Your task to perform on an android device: Open Google Chrome and click the shortcut for Amazon.com Image 0: 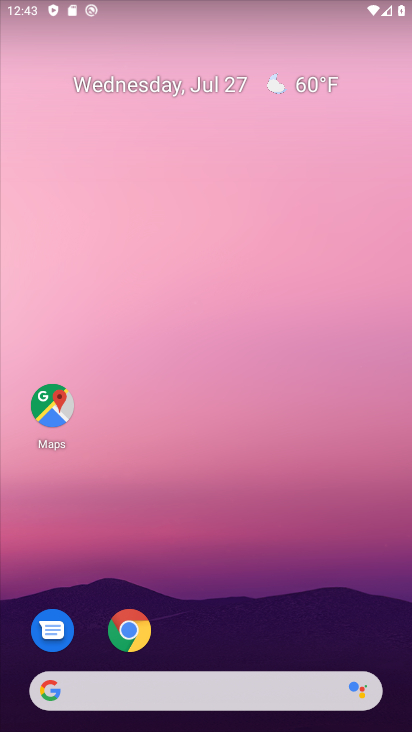
Step 0: drag from (227, 646) to (318, 126)
Your task to perform on an android device: Open Google Chrome and click the shortcut for Amazon.com Image 1: 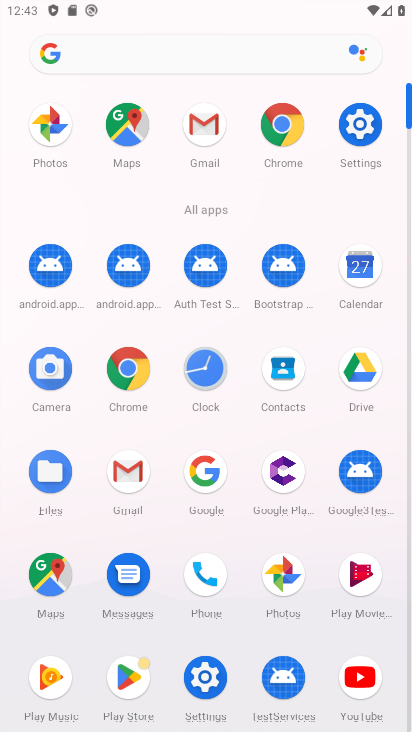
Step 1: click (289, 140)
Your task to perform on an android device: Open Google Chrome and click the shortcut for Amazon.com Image 2: 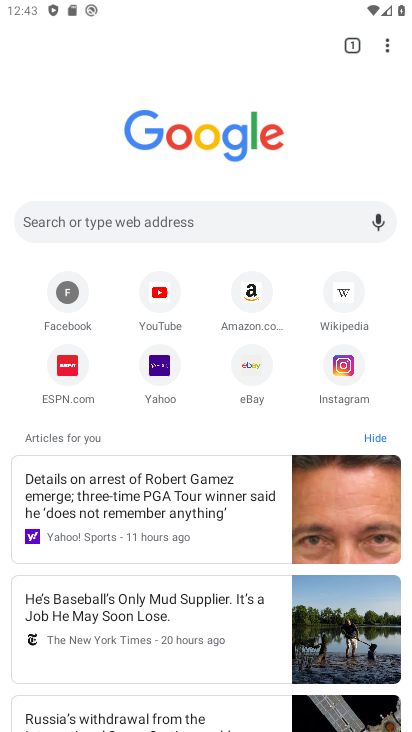
Step 2: click (247, 298)
Your task to perform on an android device: Open Google Chrome and click the shortcut for Amazon.com Image 3: 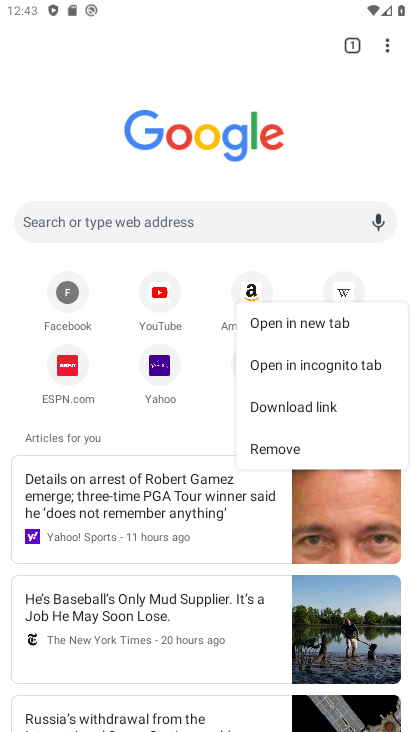
Step 3: click (251, 292)
Your task to perform on an android device: Open Google Chrome and click the shortcut for Amazon.com Image 4: 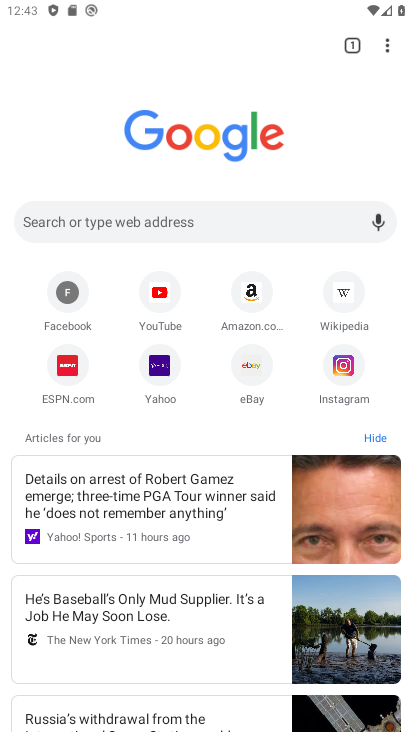
Step 4: click (255, 325)
Your task to perform on an android device: Open Google Chrome and click the shortcut for Amazon.com Image 5: 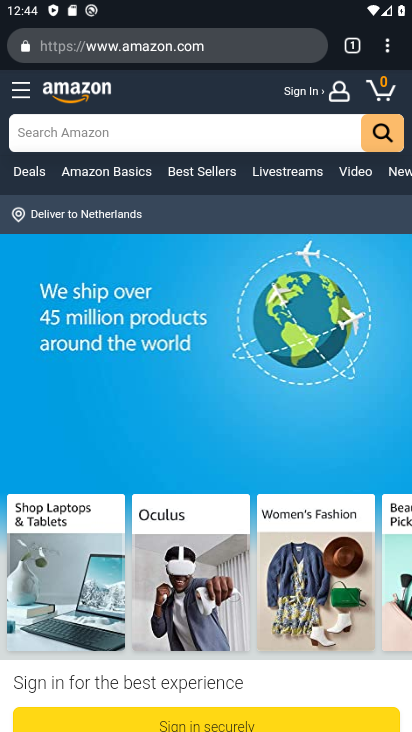
Step 5: task complete